Your task to perform on an android device: open a bookmark in the chrome app Image 0: 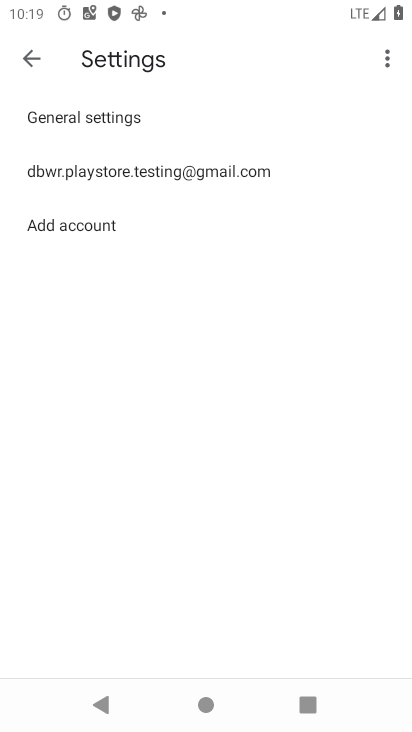
Step 0: press home button
Your task to perform on an android device: open a bookmark in the chrome app Image 1: 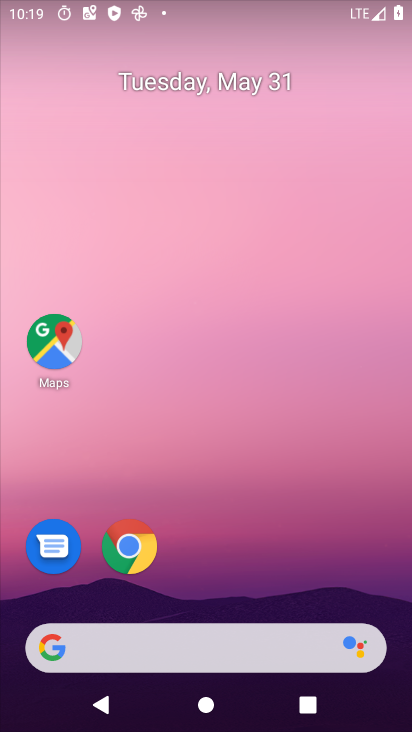
Step 1: click (114, 527)
Your task to perform on an android device: open a bookmark in the chrome app Image 2: 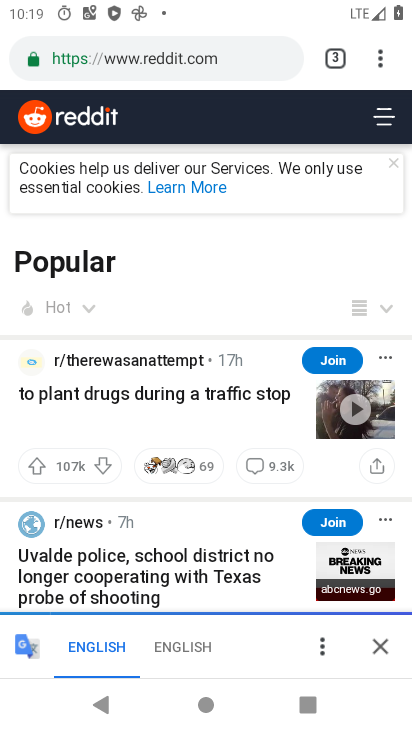
Step 2: click (391, 57)
Your task to perform on an android device: open a bookmark in the chrome app Image 3: 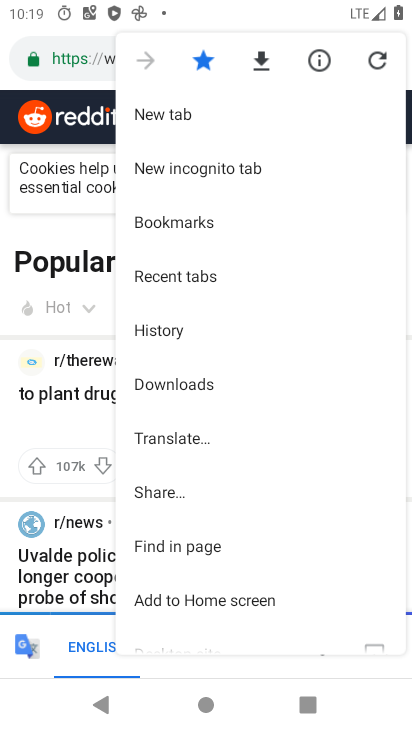
Step 3: click (216, 208)
Your task to perform on an android device: open a bookmark in the chrome app Image 4: 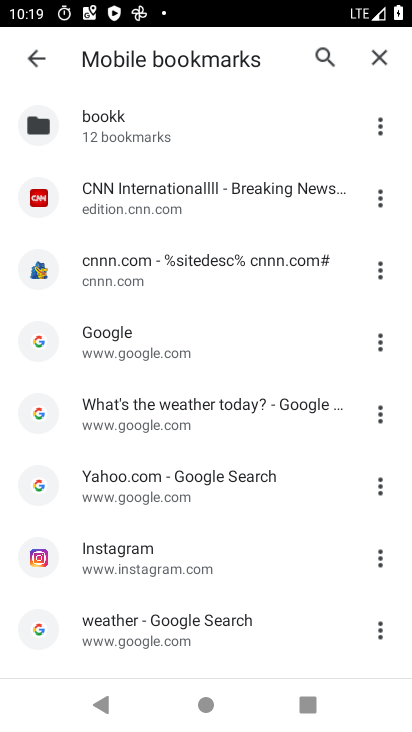
Step 4: task complete